Your task to perform on an android device: stop showing notifications on the lock screen Image 0: 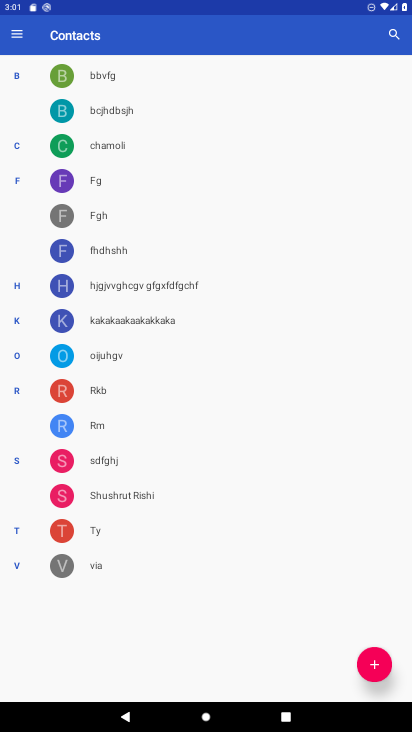
Step 0: press home button
Your task to perform on an android device: stop showing notifications on the lock screen Image 1: 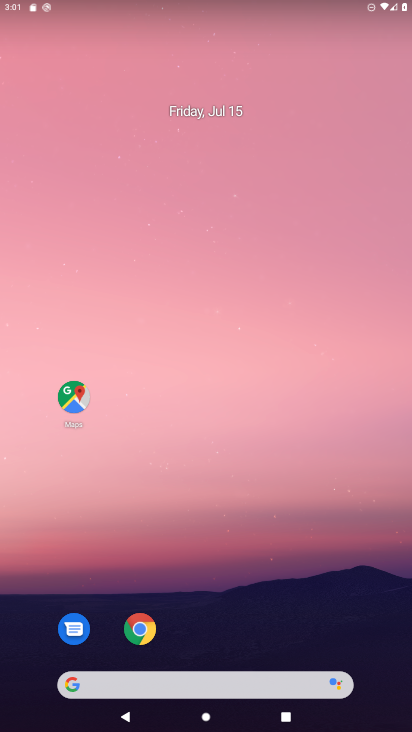
Step 1: drag from (228, 490) to (223, 11)
Your task to perform on an android device: stop showing notifications on the lock screen Image 2: 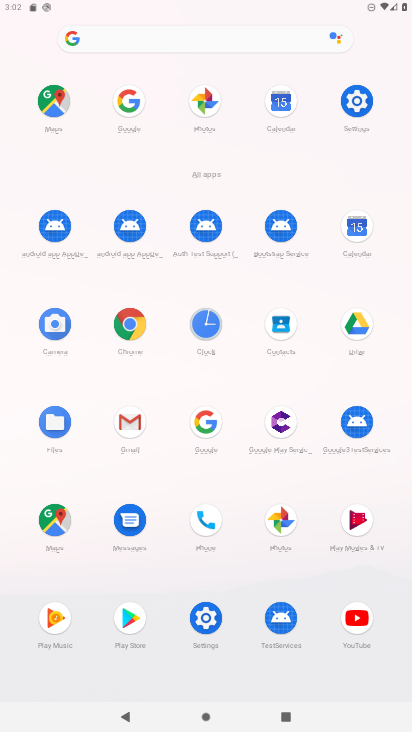
Step 2: click (349, 111)
Your task to perform on an android device: stop showing notifications on the lock screen Image 3: 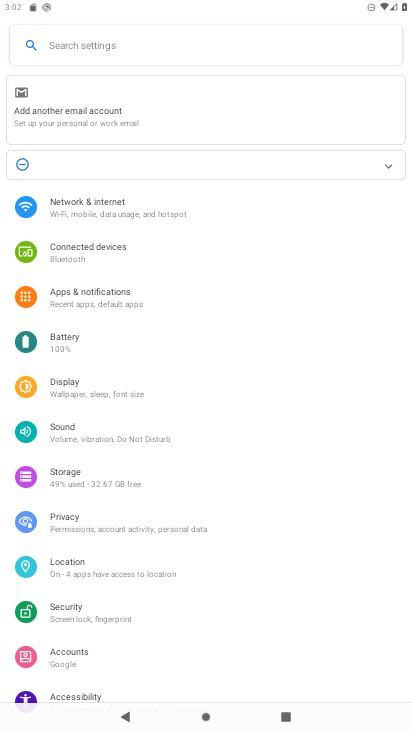
Step 3: click (113, 299)
Your task to perform on an android device: stop showing notifications on the lock screen Image 4: 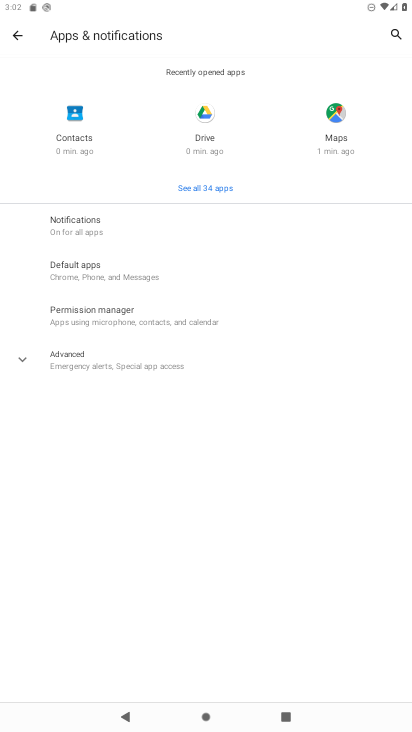
Step 4: click (67, 230)
Your task to perform on an android device: stop showing notifications on the lock screen Image 5: 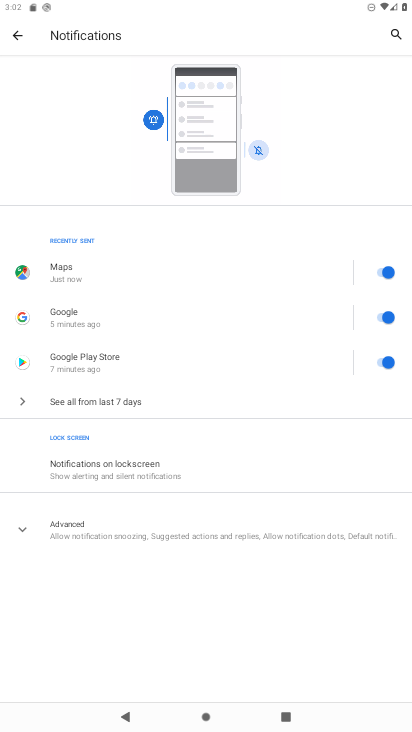
Step 5: click (93, 467)
Your task to perform on an android device: stop showing notifications on the lock screen Image 6: 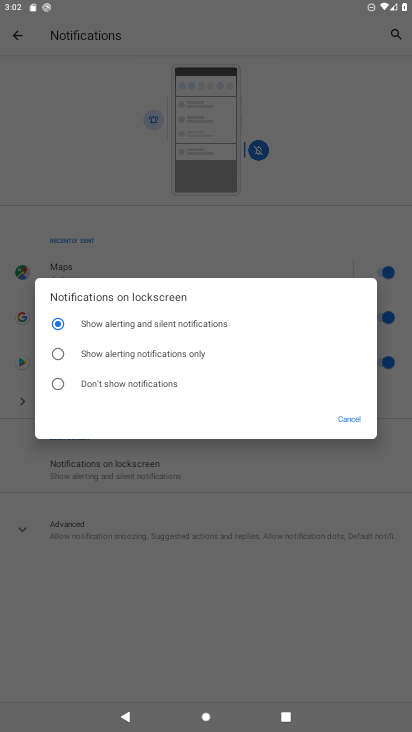
Step 6: click (86, 383)
Your task to perform on an android device: stop showing notifications on the lock screen Image 7: 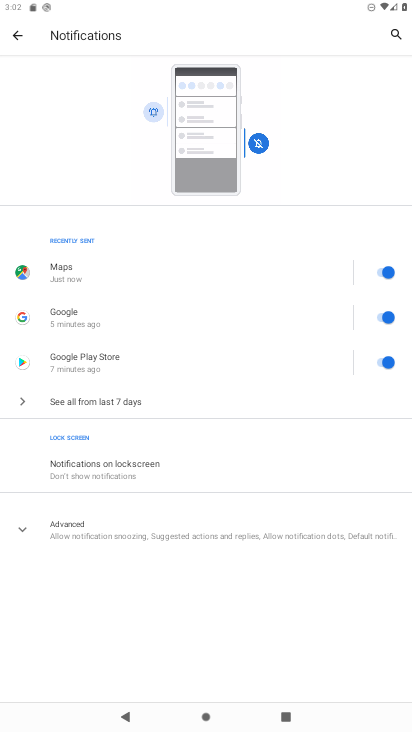
Step 7: task complete